Your task to perform on an android device: Go to network settings Image 0: 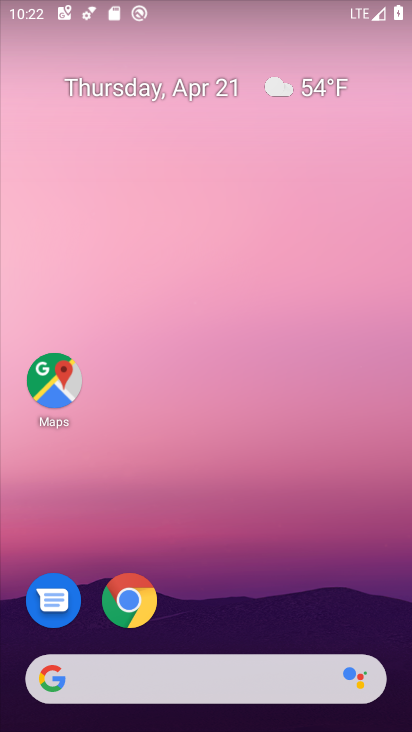
Step 0: drag from (293, 586) to (240, 63)
Your task to perform on an android device: Go to network settings Image 1: 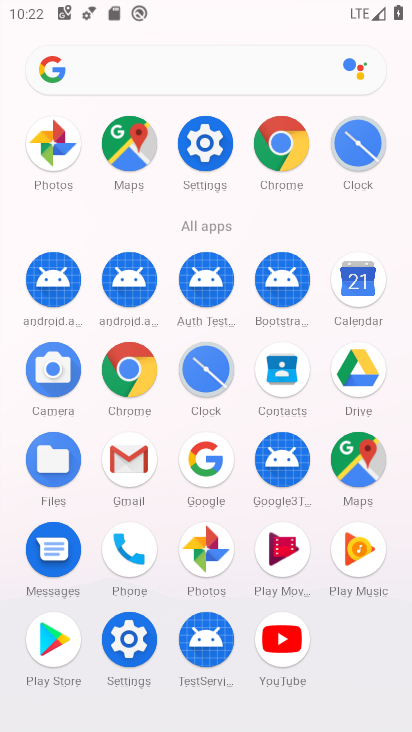
Step 1: click (197, 105)
Your task to perform on an android device: Go to network settings Image 2: 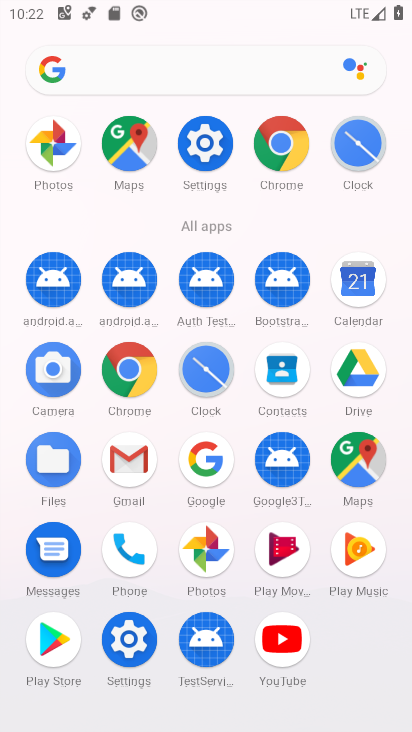
Step 2: click (217, 148)
Your task to perform on an android device: Go to network settings Image 3: 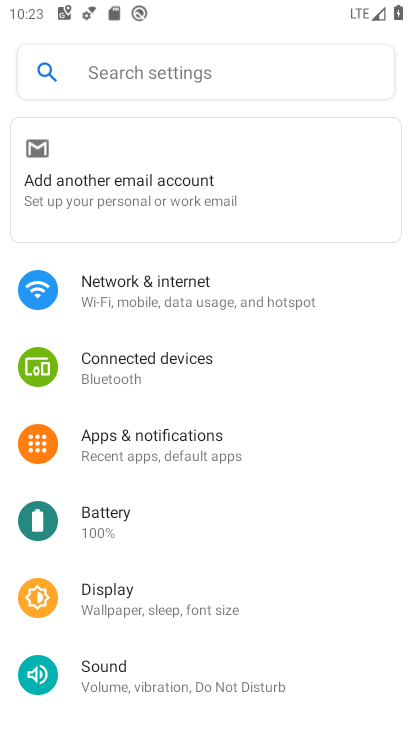
Step 3: click (193, 290)
Your task to perform on an android device: Go to network settings Image 4: 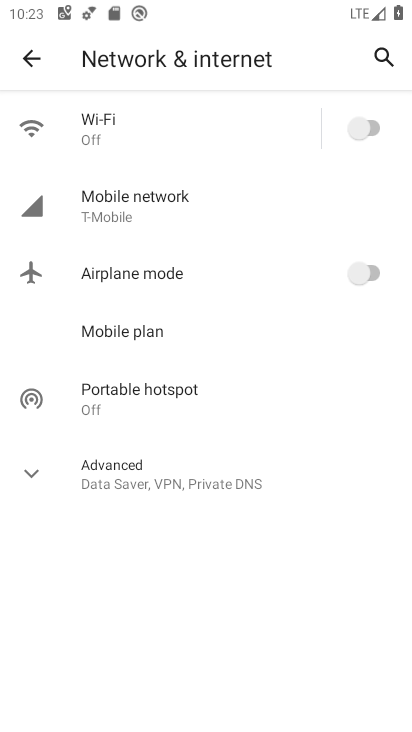
Step 4: task complete